Your task to perform on an android device: change alarm snooze length Image 0: 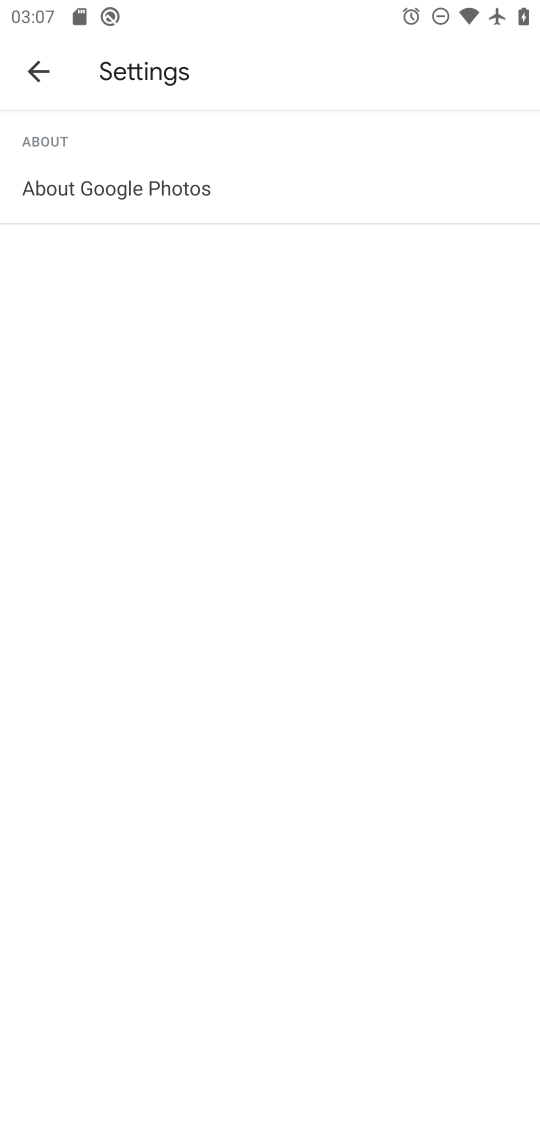
Step 0: press home button
Your task to perform on an android device: change alarm snooze length Image 1: 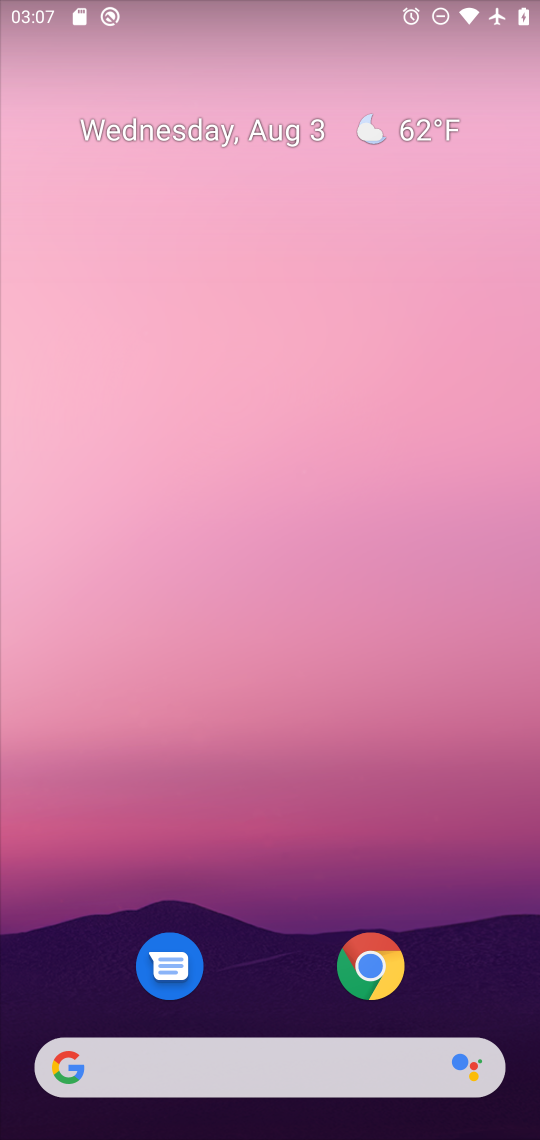
Step 1: drag from (235, 931) to (296, 333)
Your task to perform on an android device: change alarm snooze length Image 2: 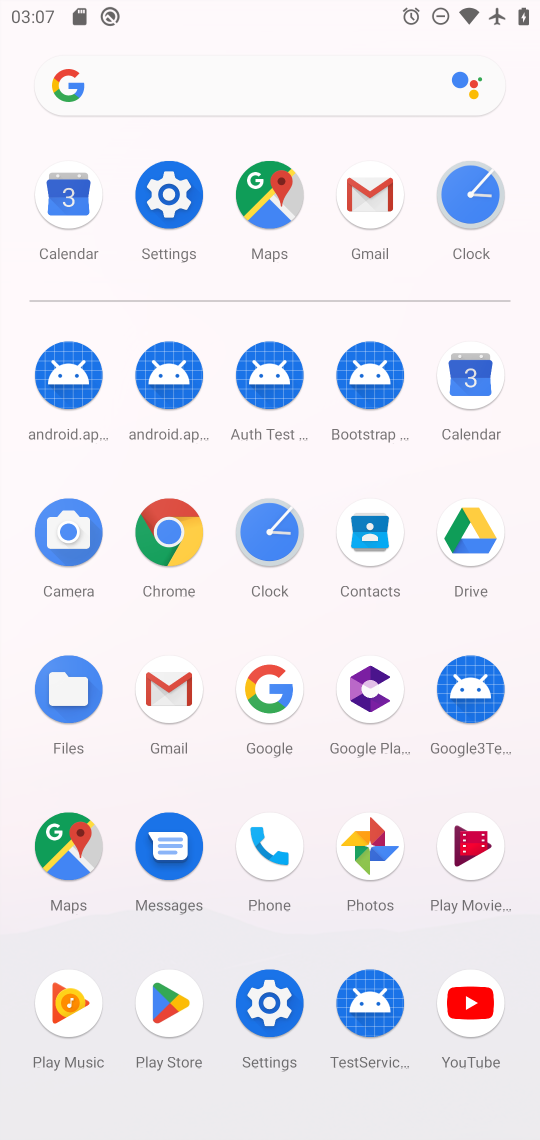
Step 2: click (472, 211)
Your task to perform on an android device: change alarm snooze length Image 3: 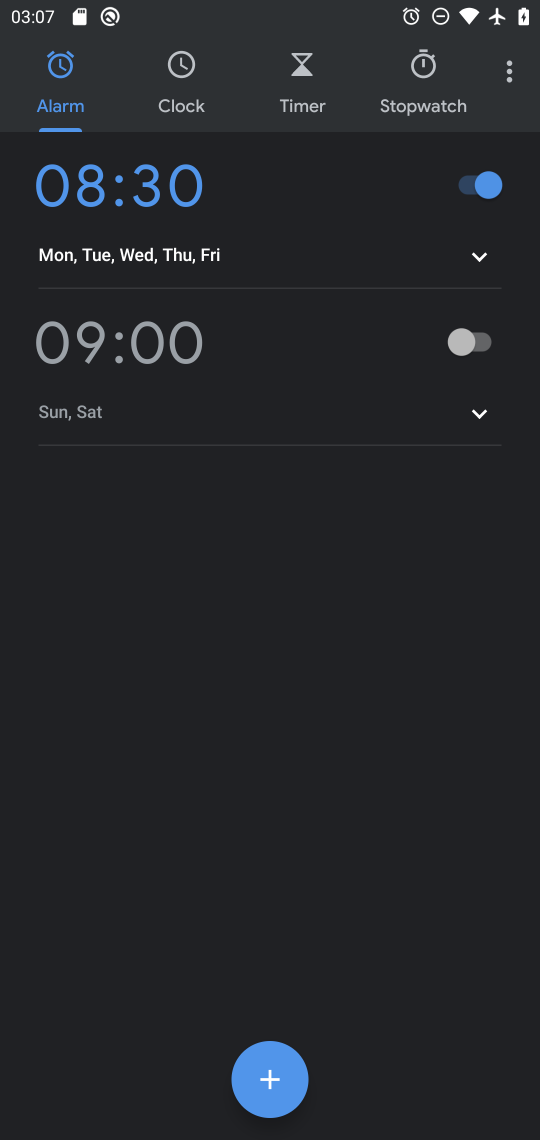
Step 3: click (510, 75)
Your task to perform on an android device: change alarm snooze length Image 4: 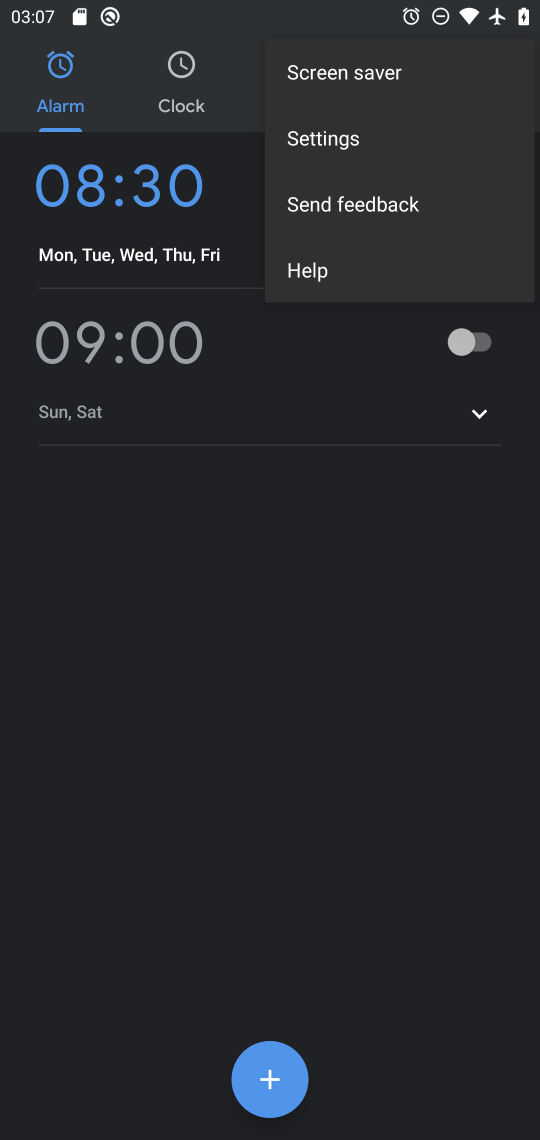
Step 4: click (331, 140)
Your task to perform on an android device: change alarm snooze length Image 5: 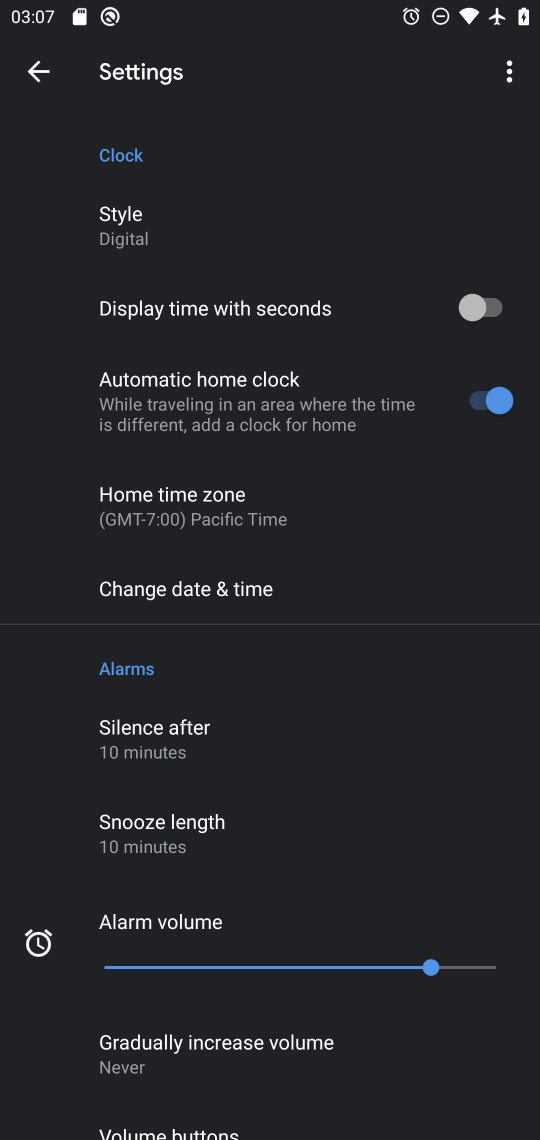
Step 5: click (218, 824)
Your task to perform on an android device: change alarm snooze length Image 6: 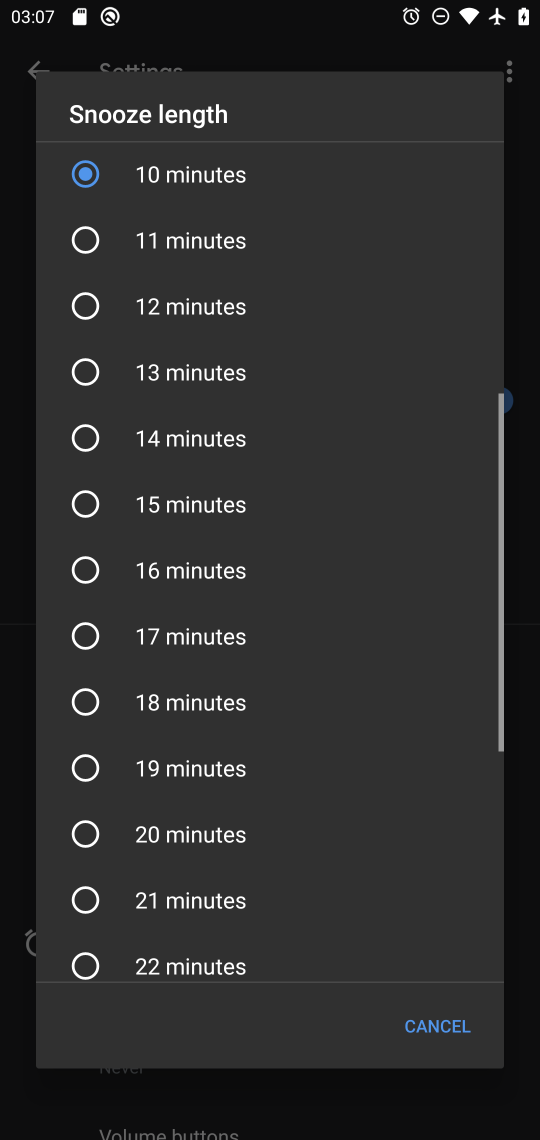
Step 6: click (204, 725)
Your task to perform on an android device: change alarm snooze length Image 7: 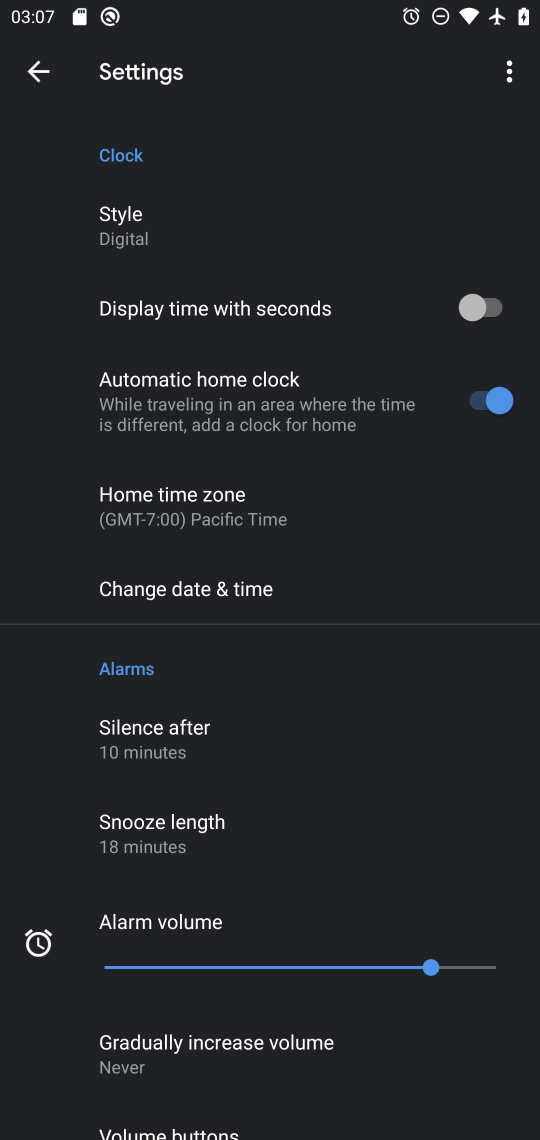
Step 7: task complete